Your task to perform on an android device: How do I get to the nearest grocery store? Image 0: 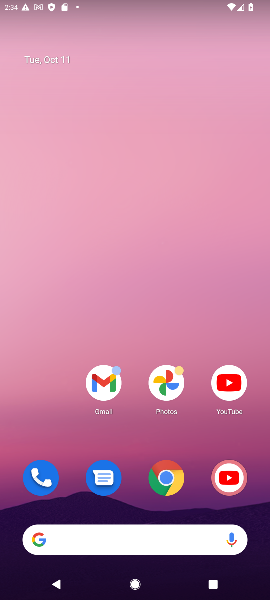
Step 0: drag from (150, 541) to (132, 185)
Your task to perform on an android device: How do I get to the nearest grocery store? Image 1: 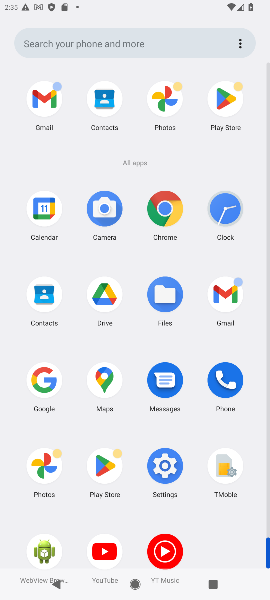
Step 1: click (157, 224)
Your task to perform on an android device: How do I get to the nearest grocery store? Image 2: 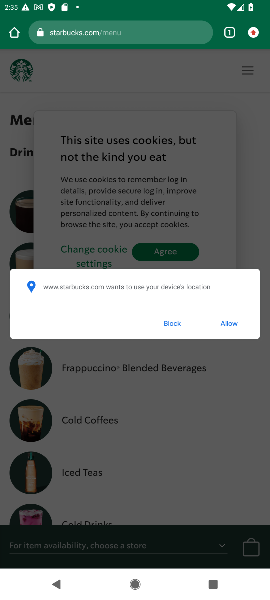
Step 2: click (136, 31)
Your task to perform on an android device: How do I get to the nearest grocery store? Image 3: 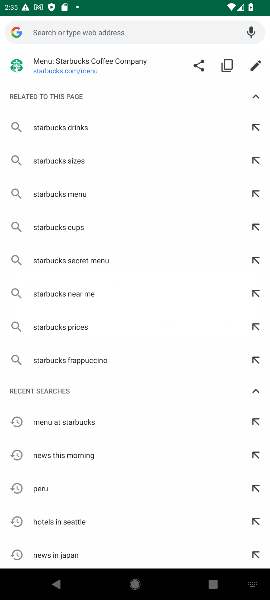
Step 3: type "How do I get to the nearest grocery store?"
Your task to perform on an android device: How do I get to the nearest grocery store? Image 4: 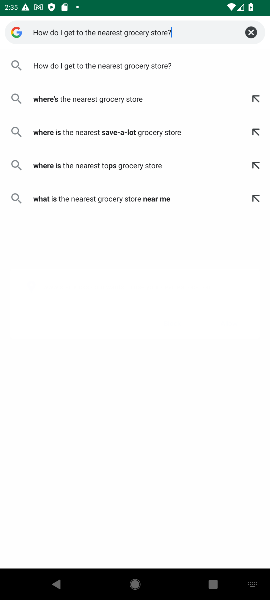
Step 4: press enter
Your task to perform on an android device: How do I get to the nearest grocery store? Image 5: 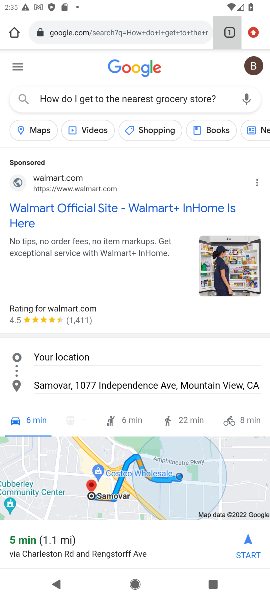
Step 5: task complete